Your task to perform on an android device: When is my next meeting? Image 0: 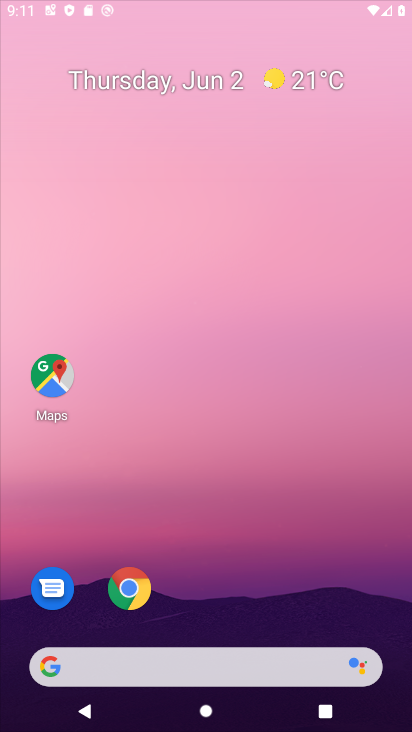
Step 0: drag from (216, 422) to (218, 292)
Your task to perform on an android device: When is my next meeting? Image 1: 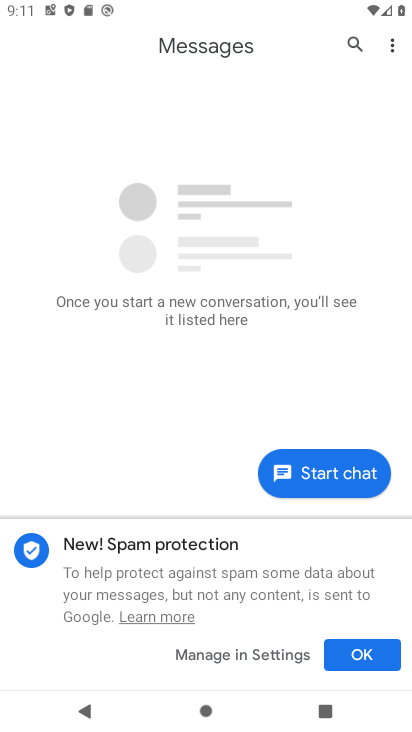
Step 1: press home button
Your task to perform on an android device: When is my next meeting? Image 2: 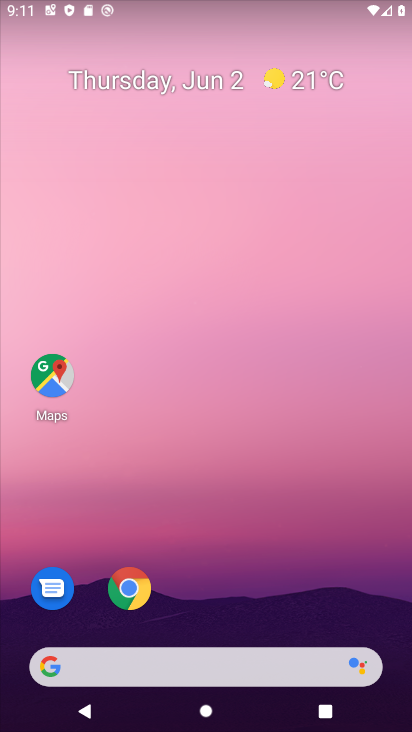
Step 2: drag from (251, 662) to (308, 223)
Your task to perform on an android device: When is my next meeting? Image 3: 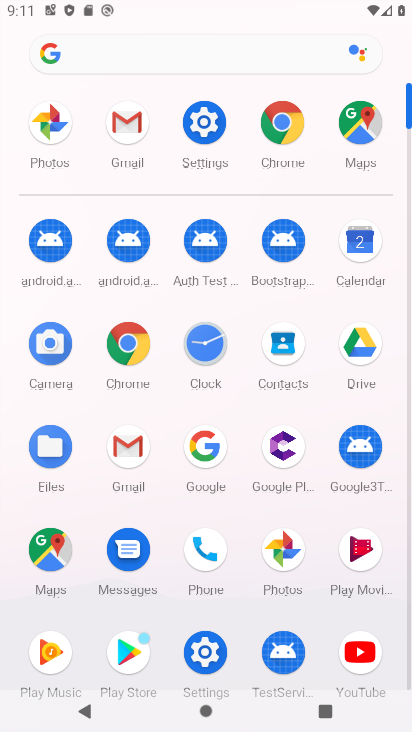
Step 3: click (372, 246)
Your task to perform on an android device: When is my next meeting? Image 4: 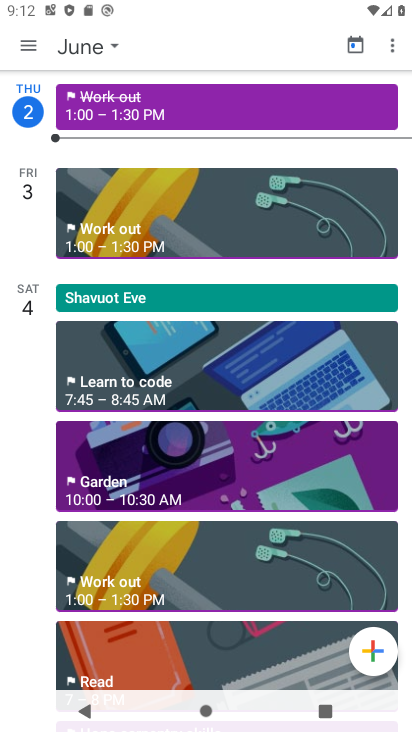
Step 4: task complete